Your task to perform on an android device: Open Yahoo.com Image 0: 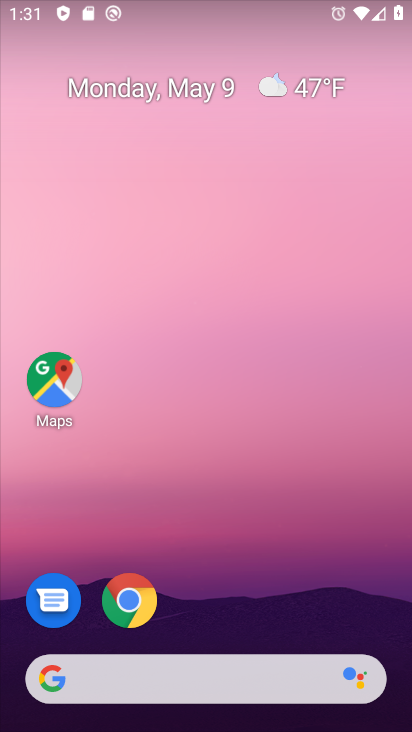
Step 0: click (128, 617)
Your task to perform on an android device: Open Yahoo.com Image 1: 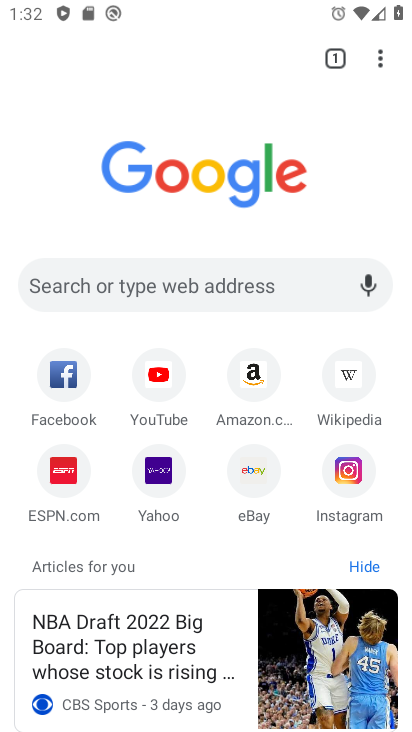
Step 1: click (160, 470)
Your task to perform on an android device: Open Yahoo.com Image 2: 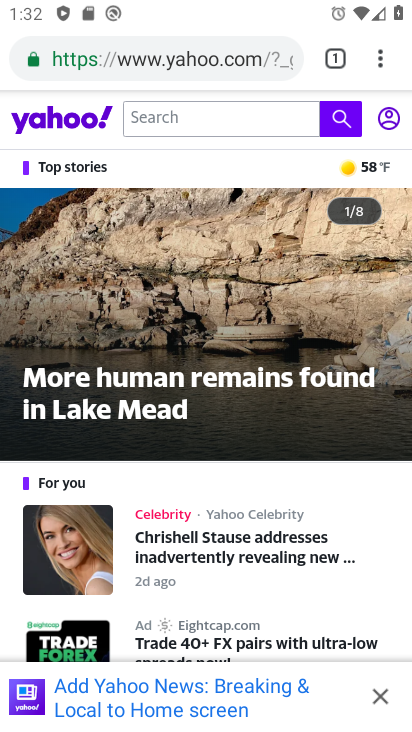
Step 2: task complete